Your task to perform on an android device: turn on translation in the chrome app Image 0: 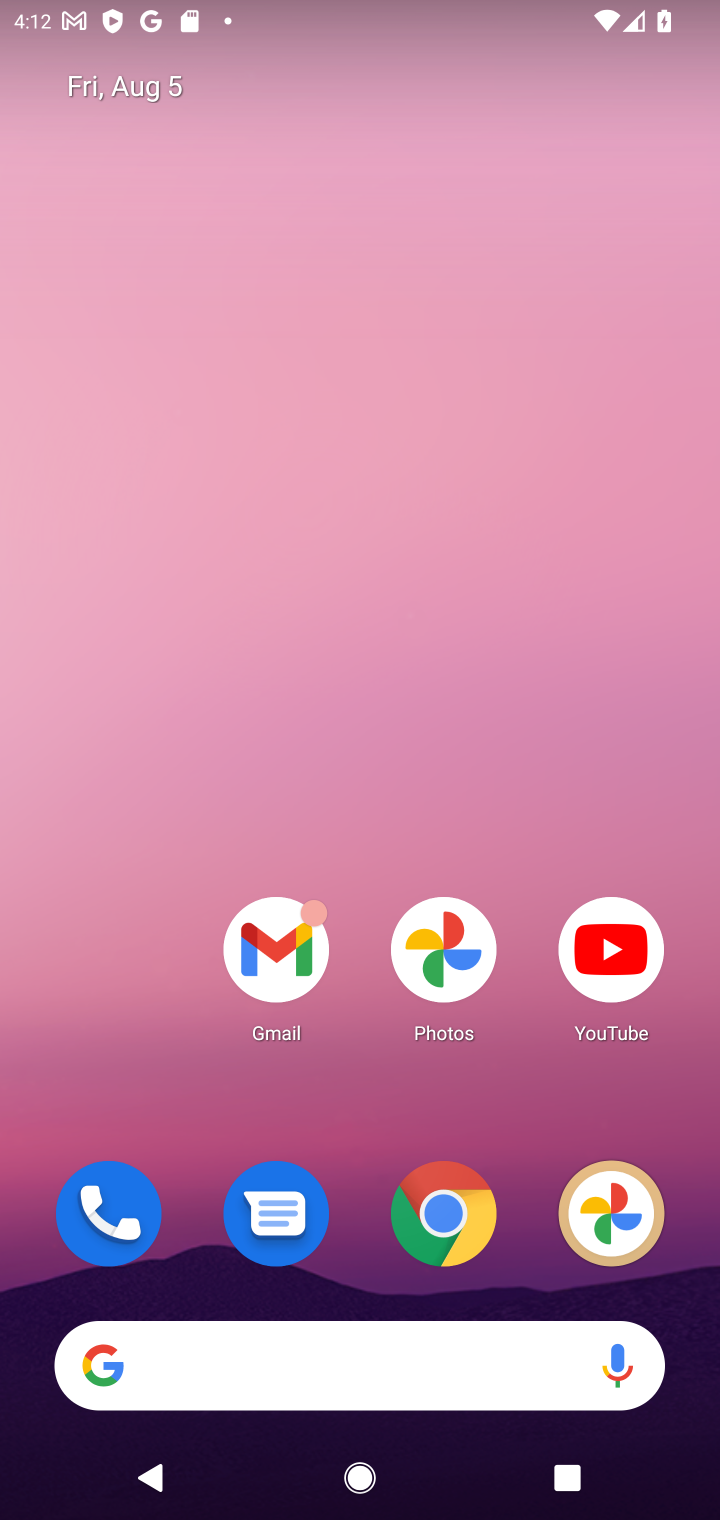
Step 0: click (422, 1230)
Your task to perform on an android device: turn on translation in the chrome app Image 1: 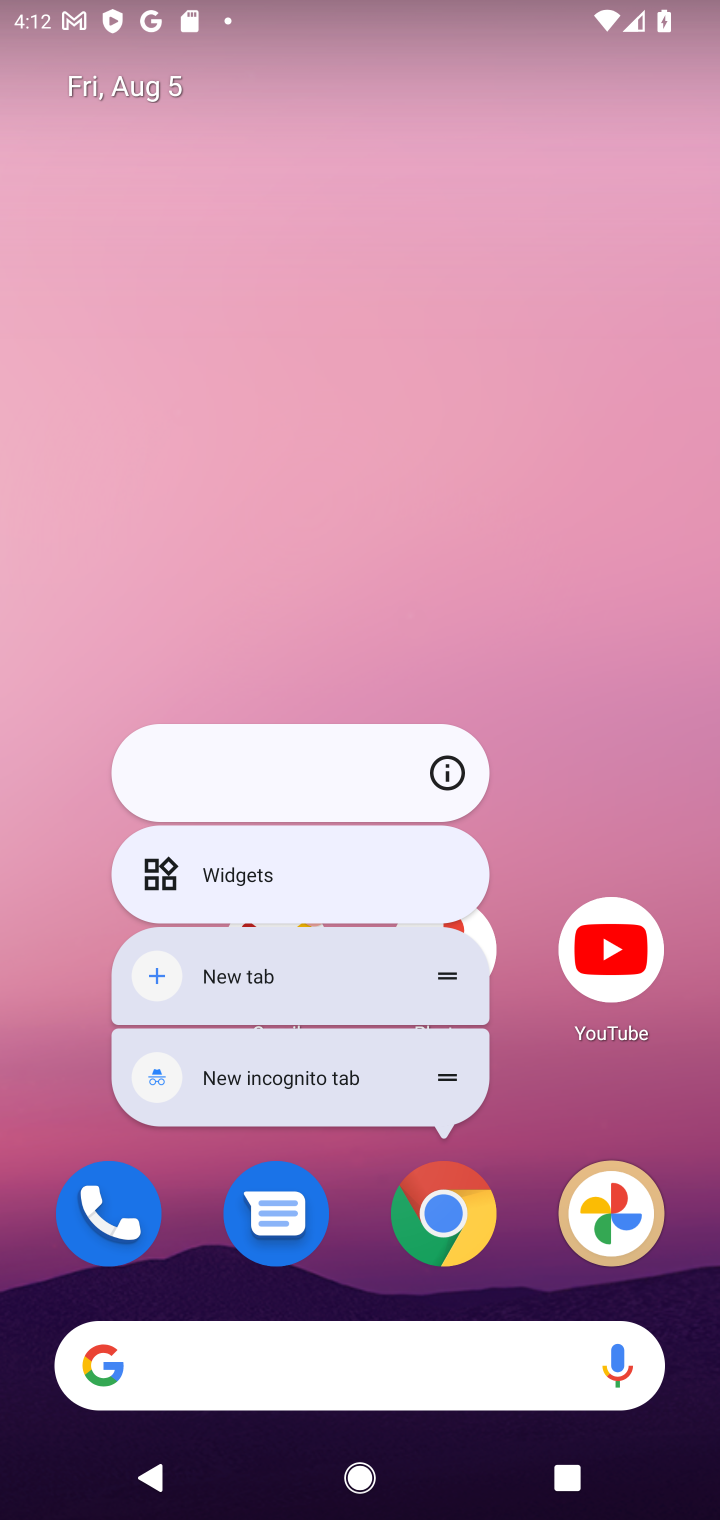
Step 1: click (422, 1230)
Your task to perform on an android device: turn on translation in the chrome app Image 2: 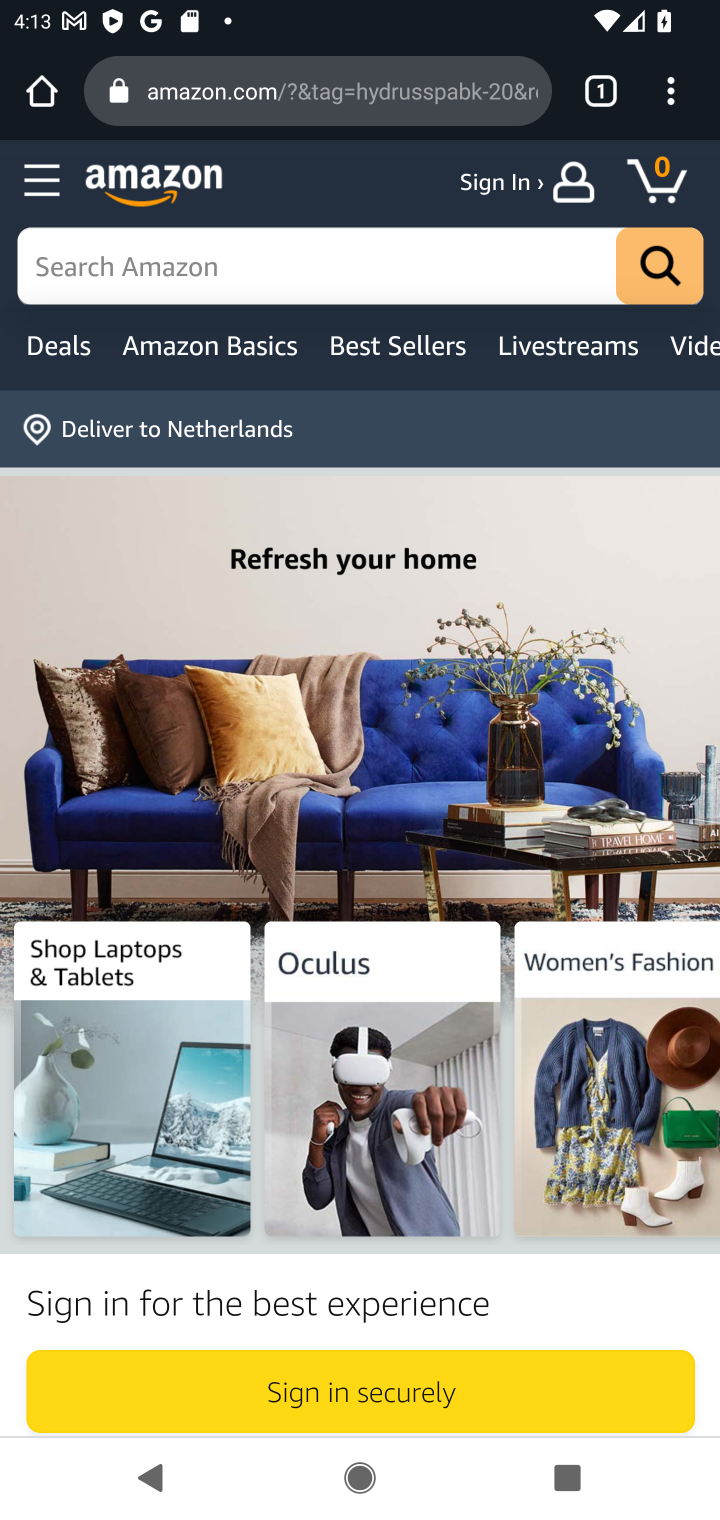
Step 2: click (690, 100)
Your task to perform on an android device: turn on translation in the chrome app Image 3: 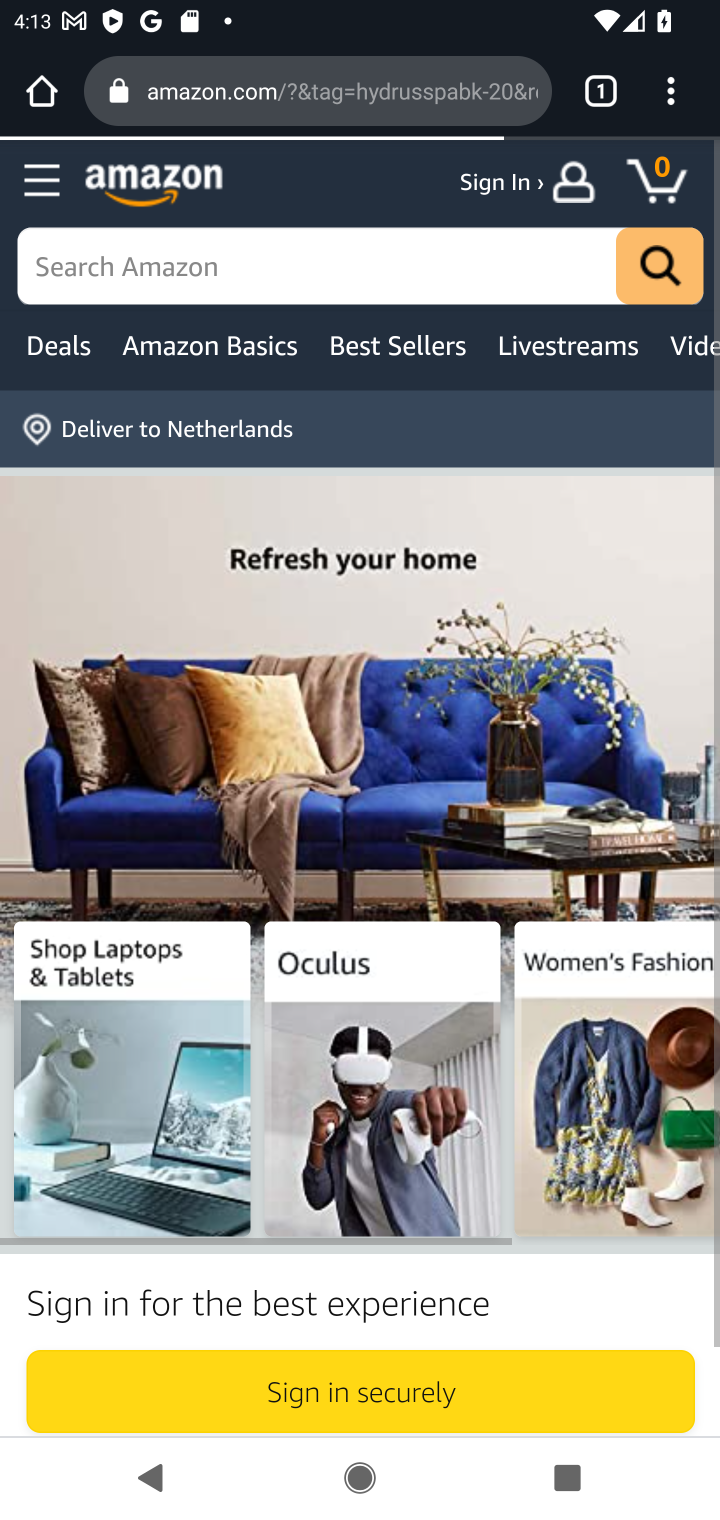
Step 3: click (690, 100)
Your task to perform on an android device: turn on translation in the chrome app Image 4: 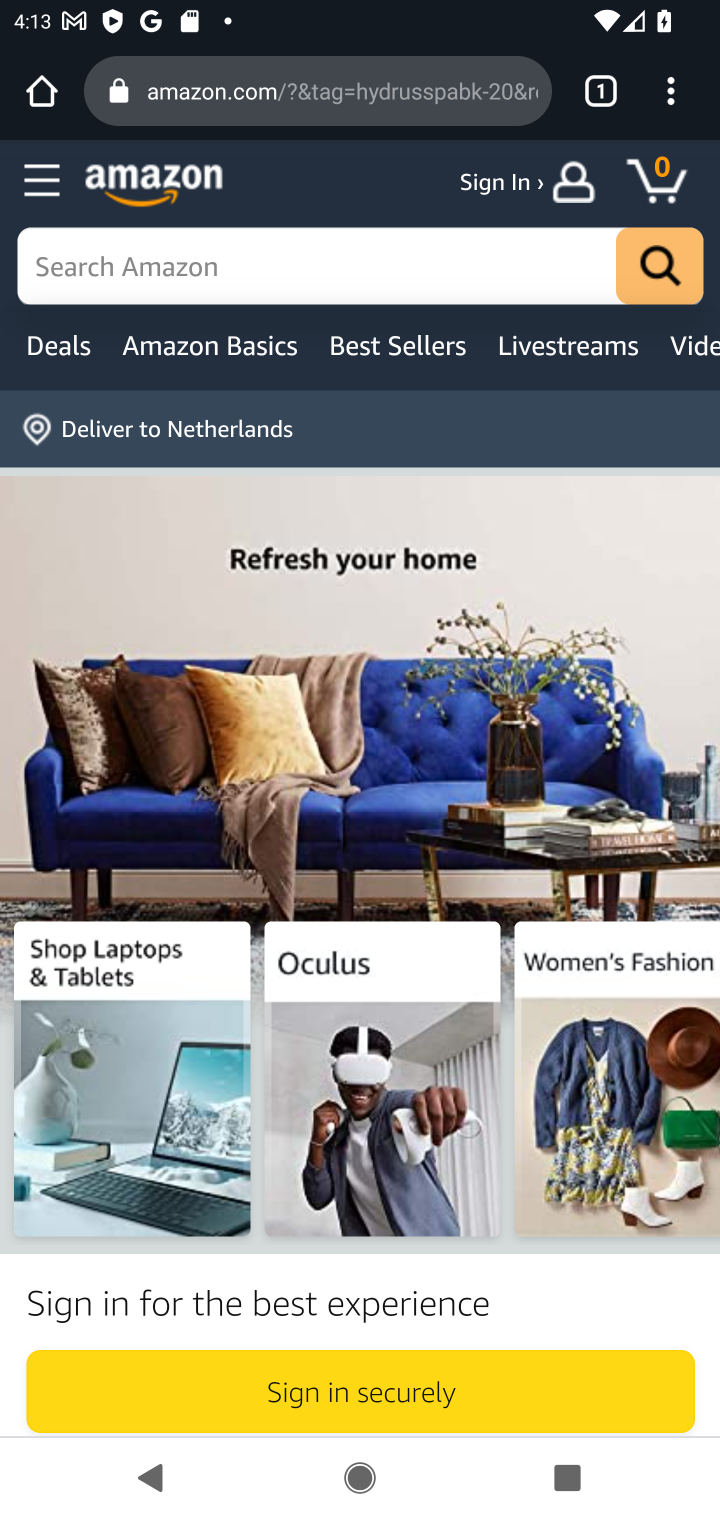
Step 4: click (670, 91)
Your task to perform on an android device: turn on translation in the chrome app Image 5: 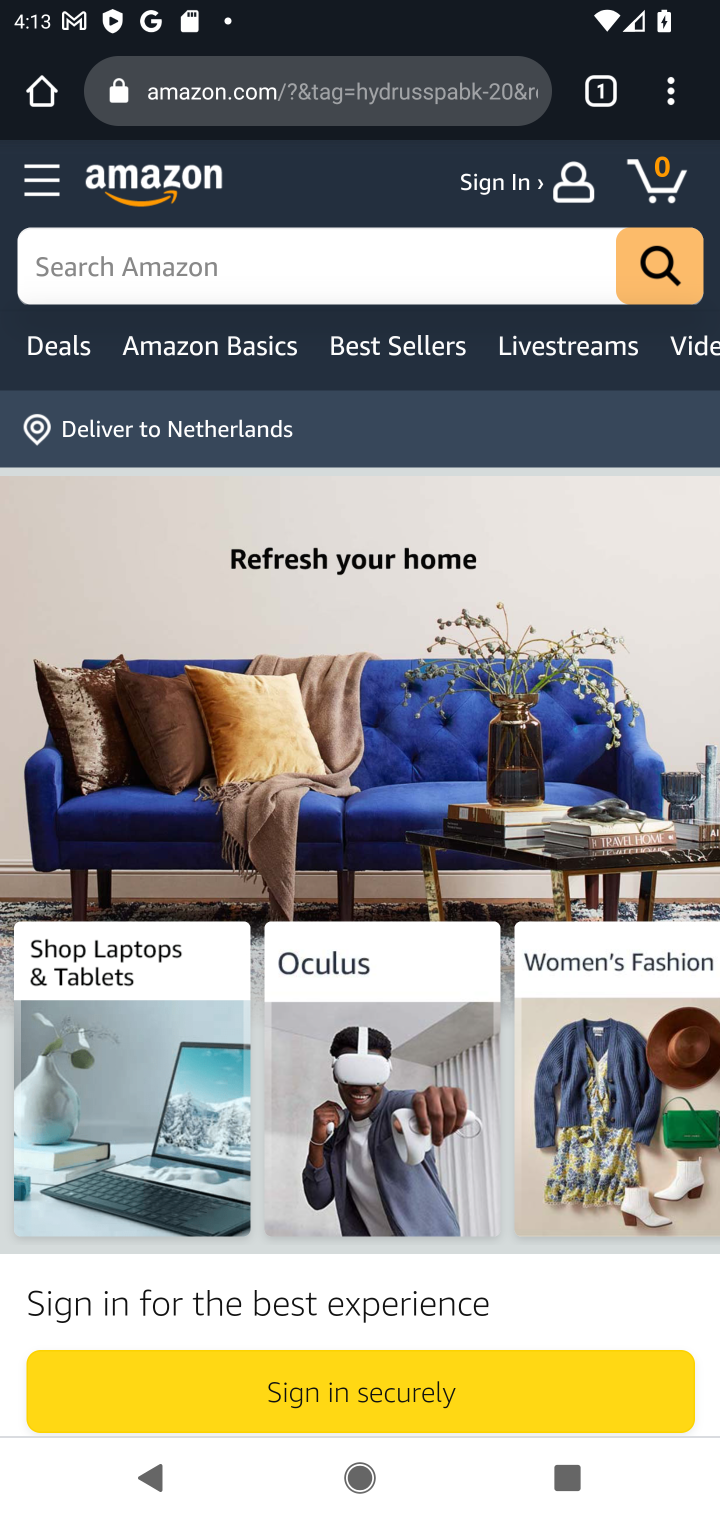
Step 5: task complete